Your task to perform on an android device: Open privacy settings Image 0: 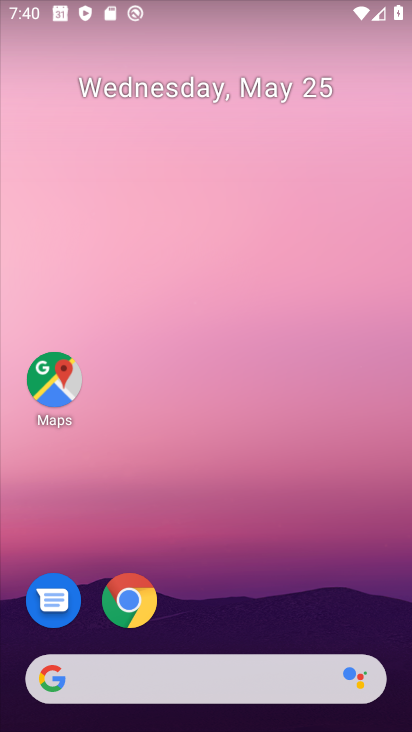
Step 0: drag from (228, 490) to (237, 189)
Your task to perform on an android device: Open privacy settings Image 1: 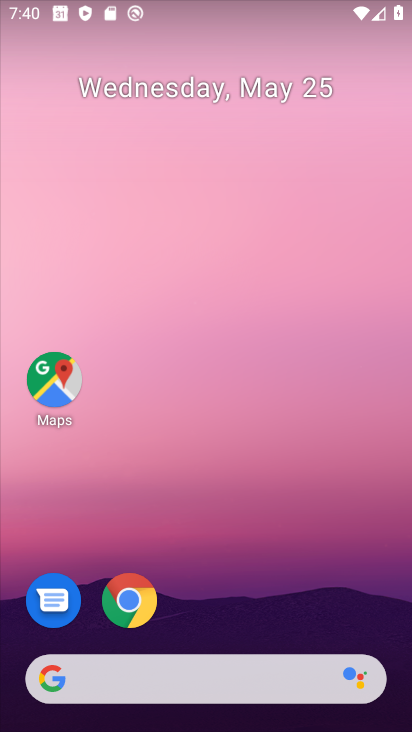
Step 1: drag from (265, 544) to (241, 148)
Your task to perform on an android device: Open privacy settings Image 2: 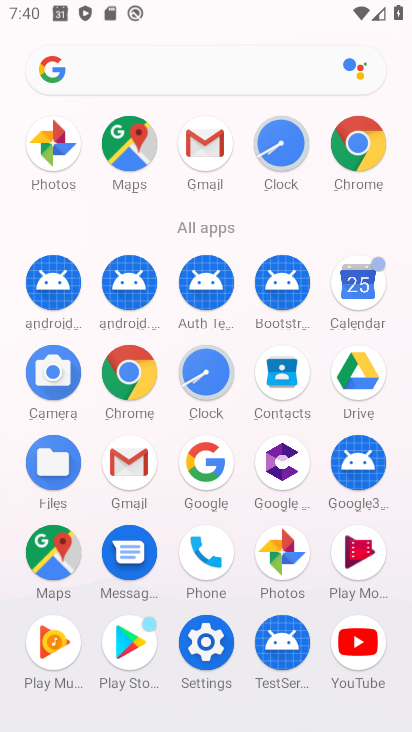
Step 2: click (209, 650)
Your task to perform on an android device: Open privacy settings Image 3: 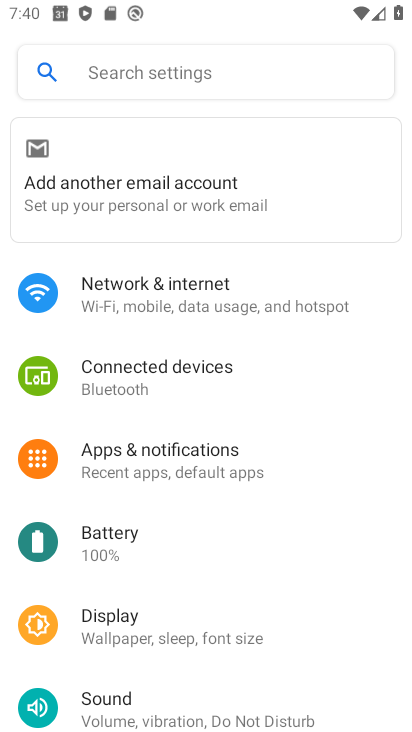
Step 3: drag from (214, 626) to (219, 270)
Your task to perform on an android device: Open privacy settings Image 4: 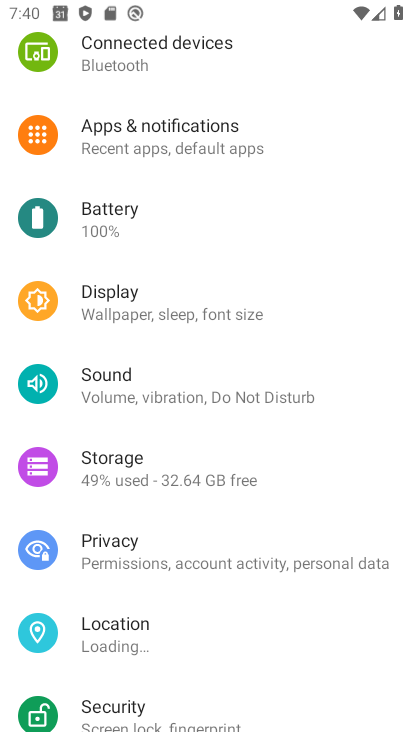
Step 4: drag from (220, 266) to (269, 182)
Your task to perform on an android device: Open privacy settings Image 5: 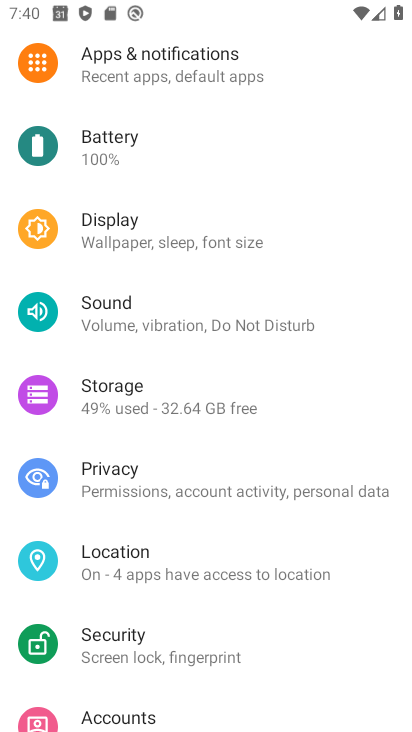
Step 5: click (191, 468)
Your task to perform on an android device: Open privacy settings Image 6: 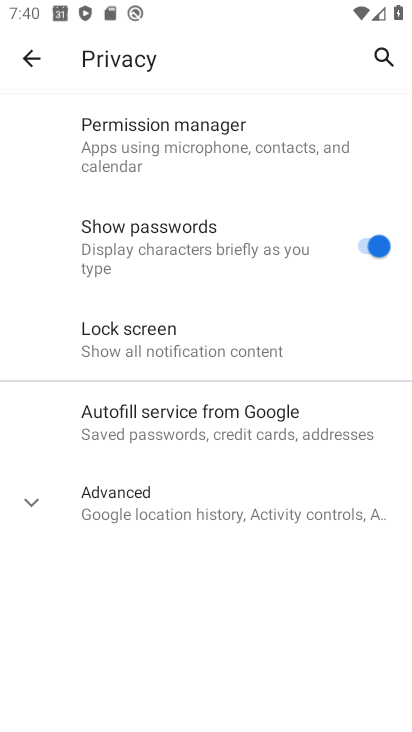
Step 6: task complete